Your task to perform on an android device: Go to CNN.com Image 0: 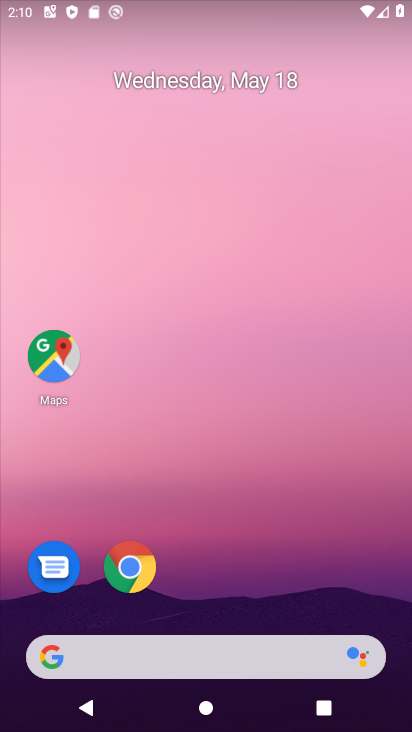
Step 0: drag from (290, 589) to (313, 238)
Your task to perform on an android device: Go to CNN.com Image 1: 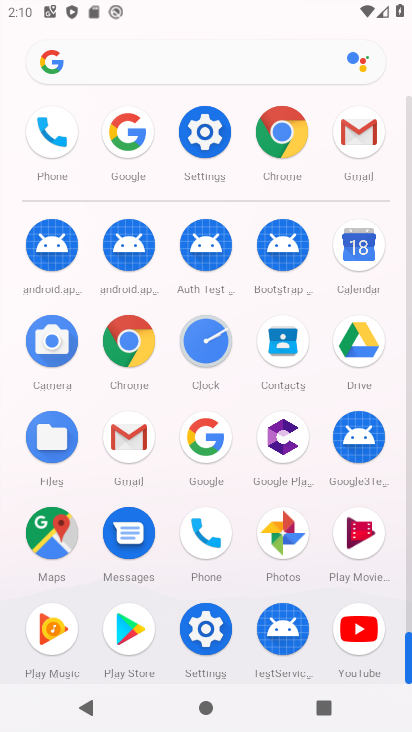
Step 1: click (114, 342)
Your task to perform on an android device: Go to CNN.com Image 2: 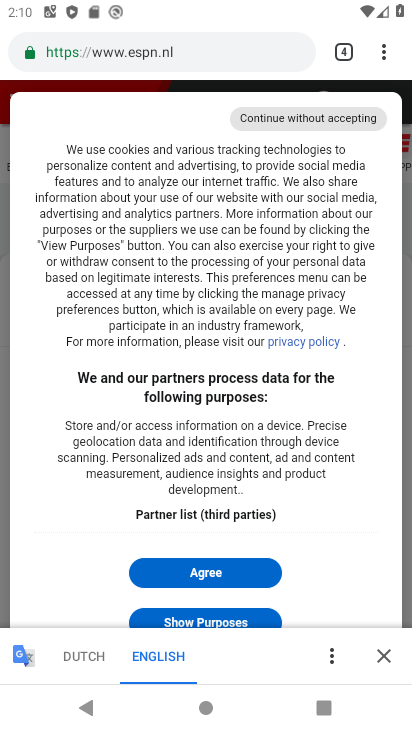
Step 2: click (390, 57)
Your task to perform on an android device: Go to CNN.com Image 3: 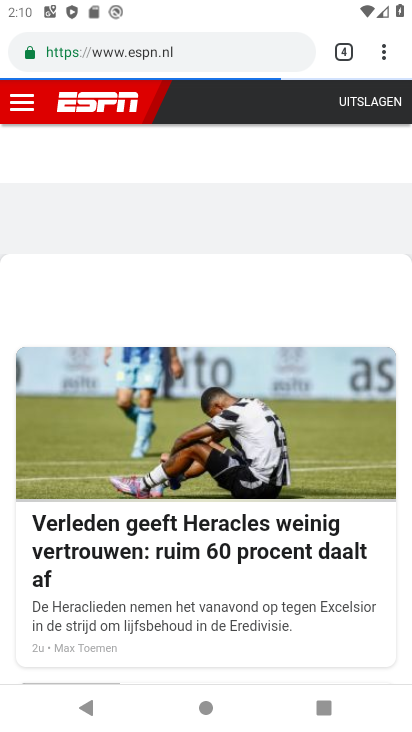
Step 3: click (381, 46)
Your task to perform on an android device: Go to CNN.com Image 4: 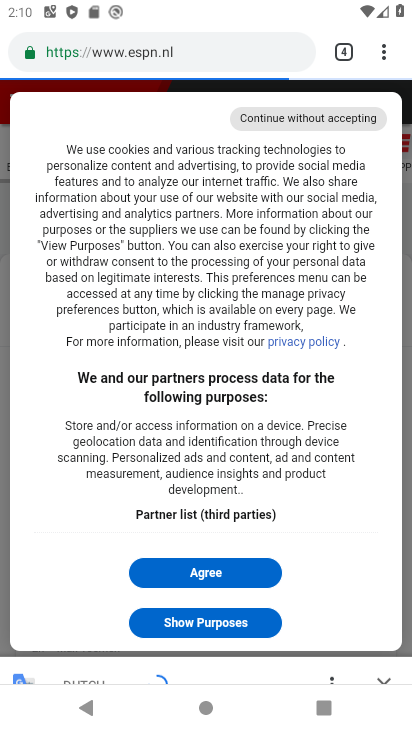
Step 4: click (381, 54)
Your task to perform on an android device: Go to CNN.com Image 5: 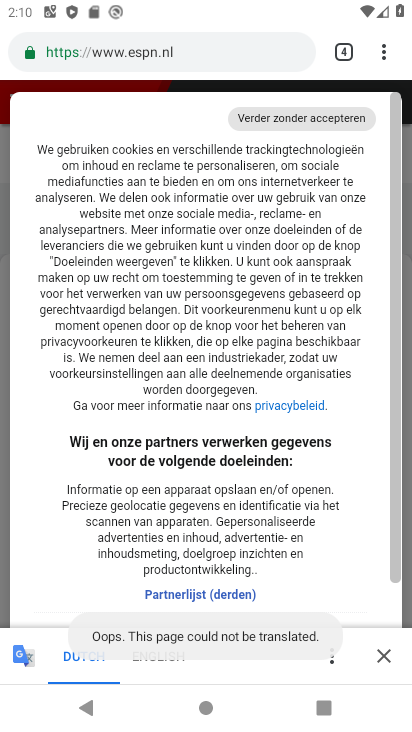
Step 5: click (366, 49)
Your task to perform on an android device: Go to CNN.com Image 6: 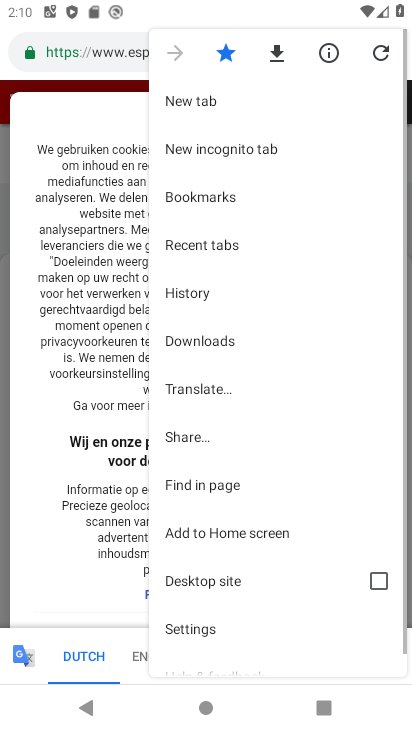
Step 6: click (177, 104)
Your task to perform on an android device: Go to CNN.com Image 7: 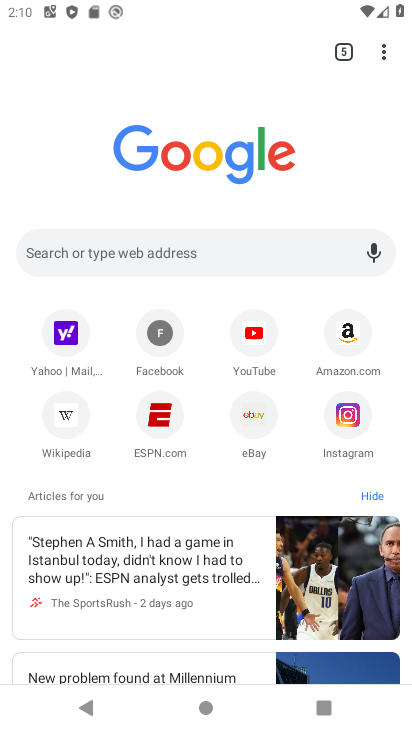
Step 7: click (124, 236)
Your task to perform on an android device: Go to CNN.com Image 8: 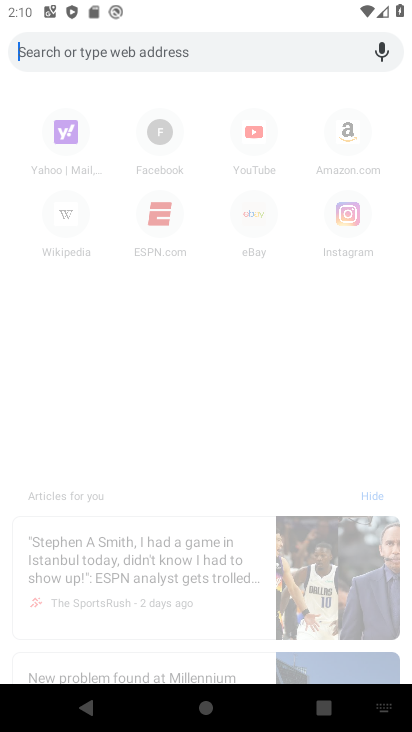
Step 8: type "CNN.com"
Your task to perform on an android device: Go to CNN.com Image 9: 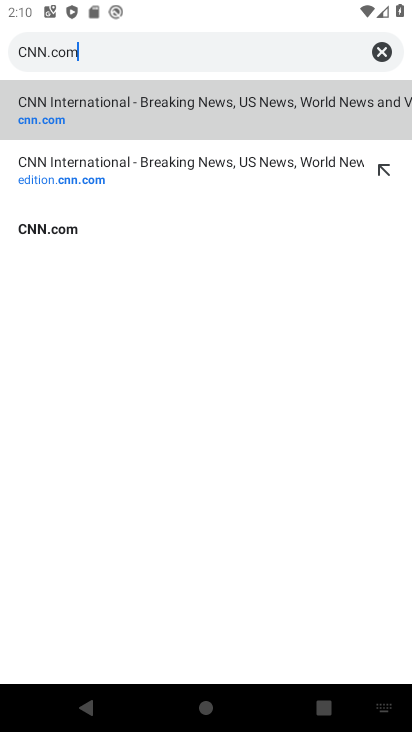
Step 9: click (82, 118)
Your task to perform on an android device: Go to CNN.com Image 10: 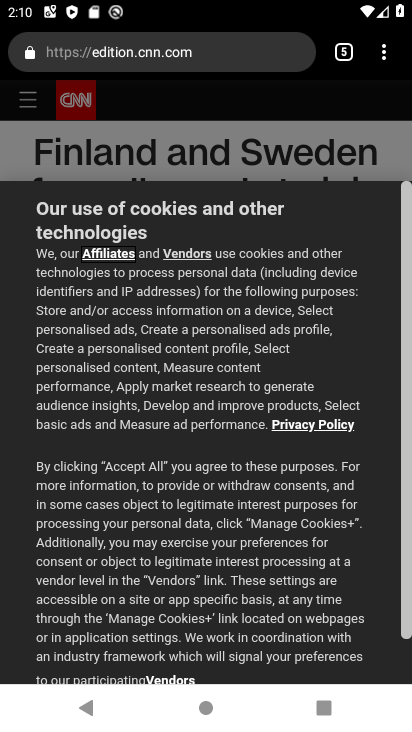
Step 10: task complete